Your task to perform on an android device: Add bose soundsport free to the cart on walmart.com Image 0: 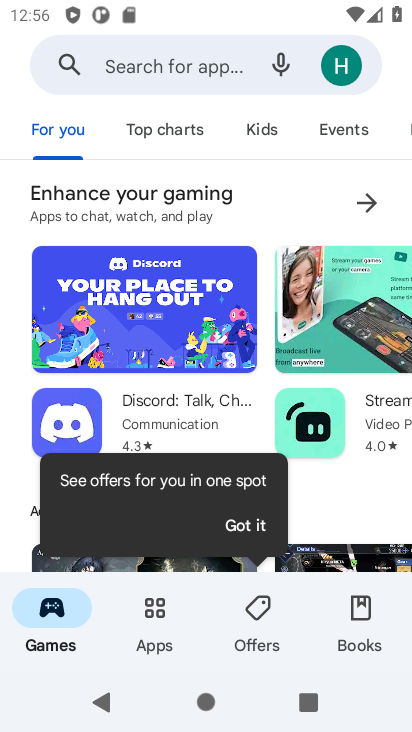
Step 0: press home button
Your task to perform on an android device: Add bose soundsport free to the cart on walmart.com Image 1: 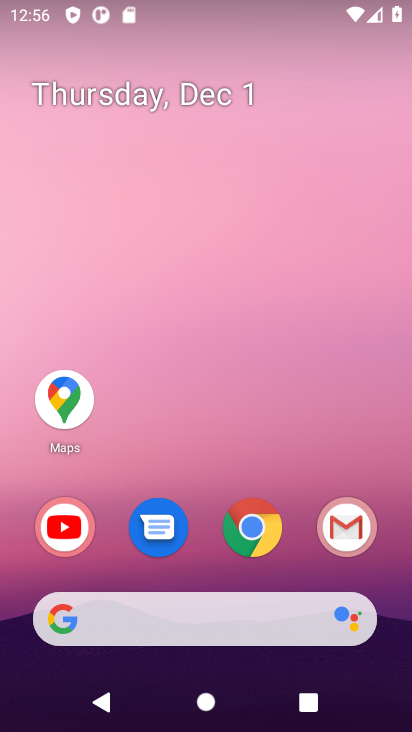
Step 1: click (253, 529)
Your task to perform on an android device: Add bose soundsport free to the cart on walmart.com Image 2: 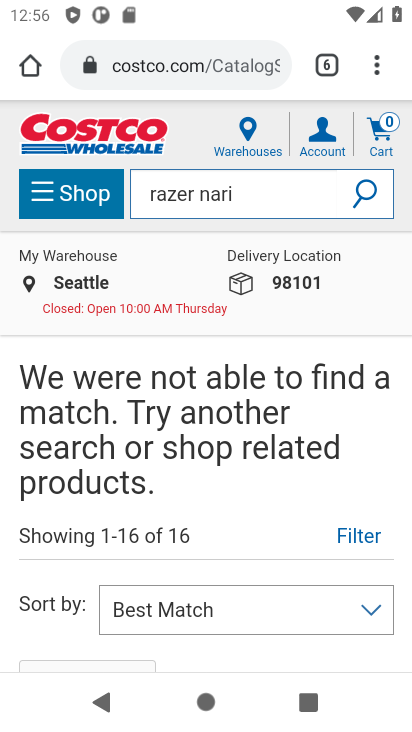
Step 2: click (196, 63)
Your task to perform on an android device: Add bose soundsport free to the cart on walmart.com Image 3: 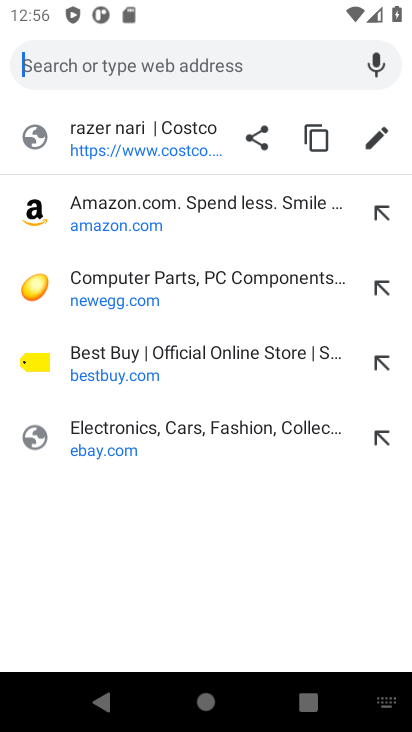
Step 3: type "walmart.com"
Your task to perform on an android device: Add bose soundsport free to the cart on walmart.com Image 4: 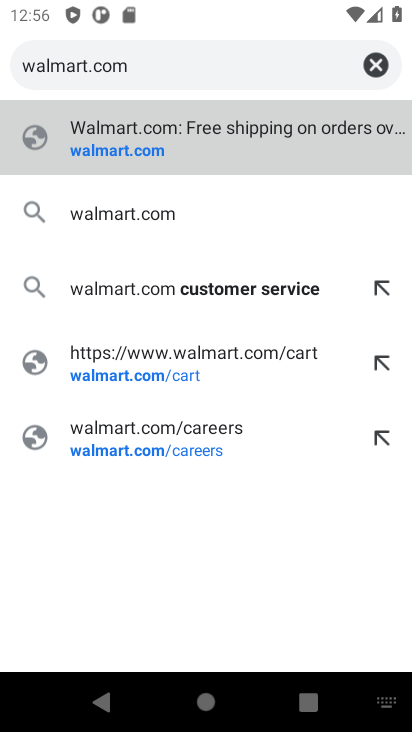
Step 4: click (127, 146)
Your task to perform on an android device: Add bose soundsport free to the cart on walmart.com Image 5: 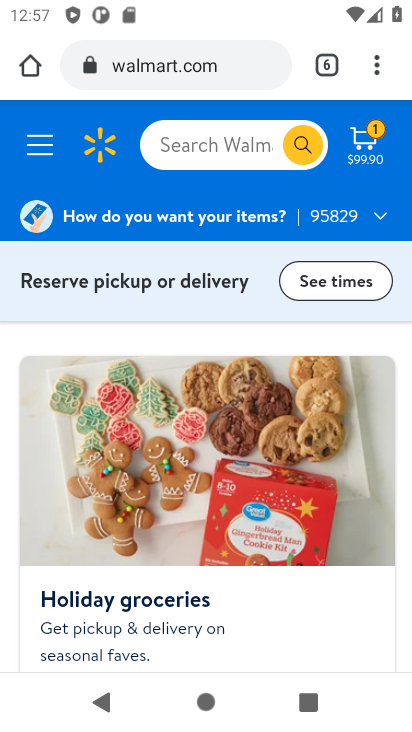
Step 5: click (187, 141)
Your task to perform on an android device: Add bose soundsport free to the cart on walmart.com Image 6: 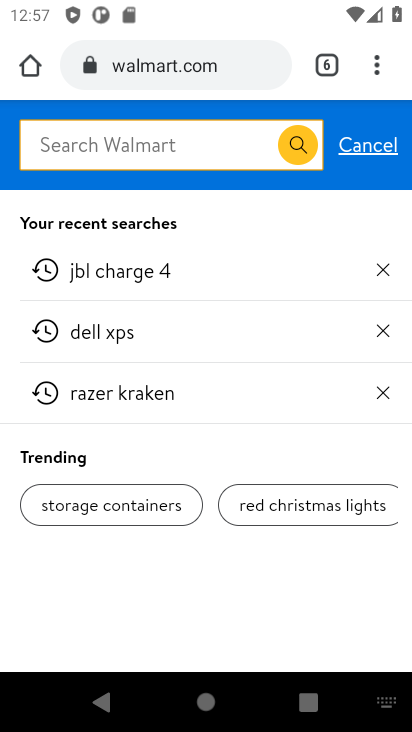
Step 6: type " bose soundsport free "
Your task to perform on an android device: Add bose soundsport free to the cart on walmart.com Image 7: 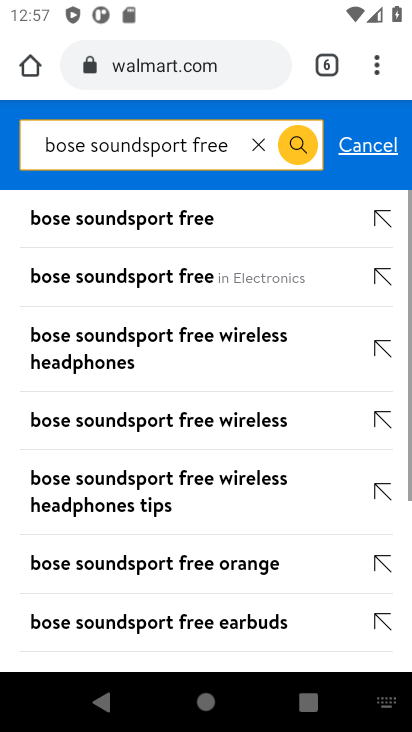
Step 7: click (157, 226)
Your task to perform on an android device: Add bose soundsport free to the cart on walmart.com Image 8: 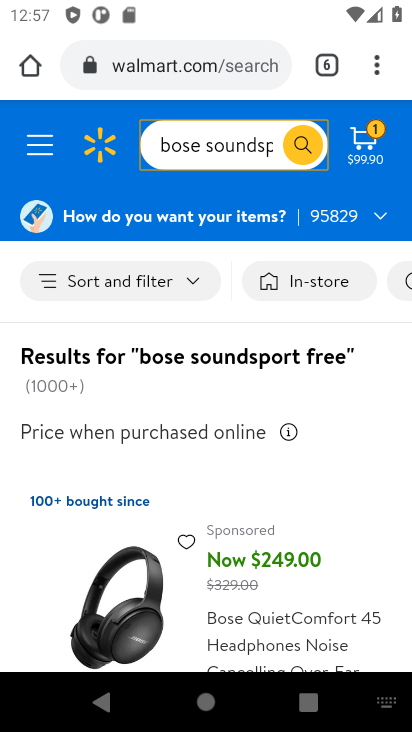
Step 8: task complete